Your task to perform on an android device: check battery use Image 0: 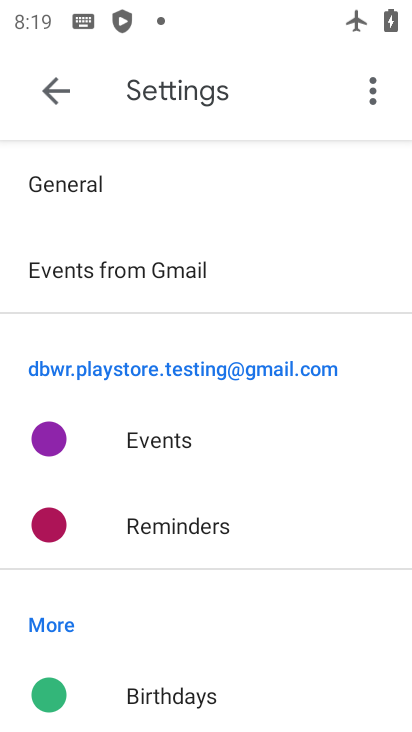
Step 0: press home button
Your task to perform on an android device: check battery use Image 1: 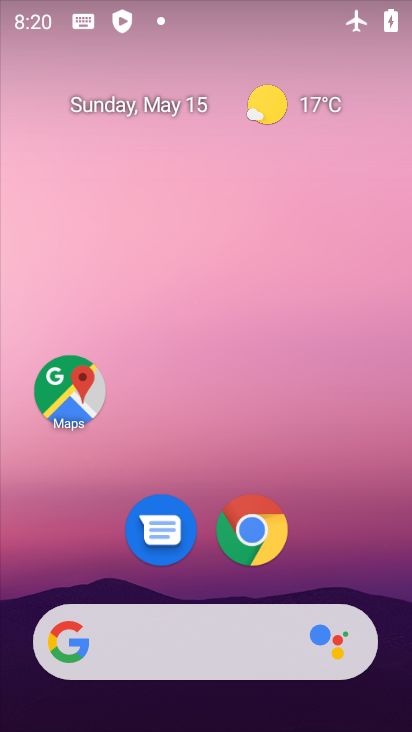
Step 1: drag from (212, 698) to (198, 94)
Your task to perform on an android device: check battery use Image 2: 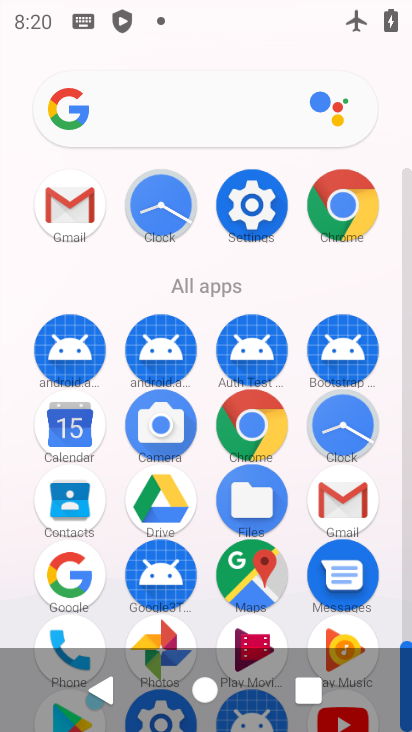
Step 2: click (247, 197)
Your task to perform on an android device: check battery use Image 3: 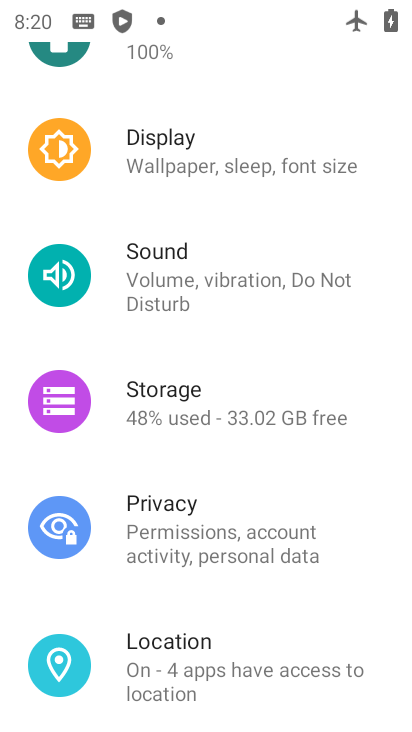
Step 3: drag from (207, 154) to (239, 554)
Your task to perform on an android device: check battery use Image 4: 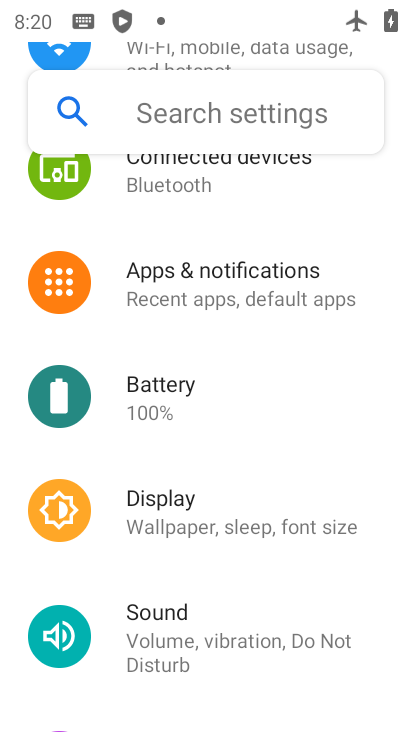
Step 4: click (172, 389)
Your task to perform on an android device: check battery use Image 5: 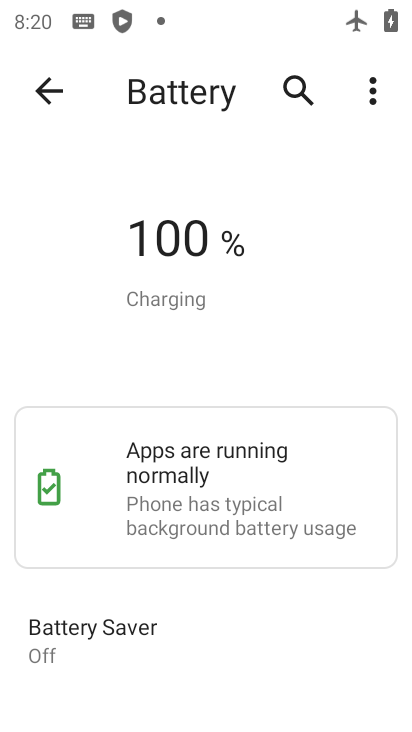
Step 5: click (374, 100)
Your task to perform on an android device: check battery use Image 6: 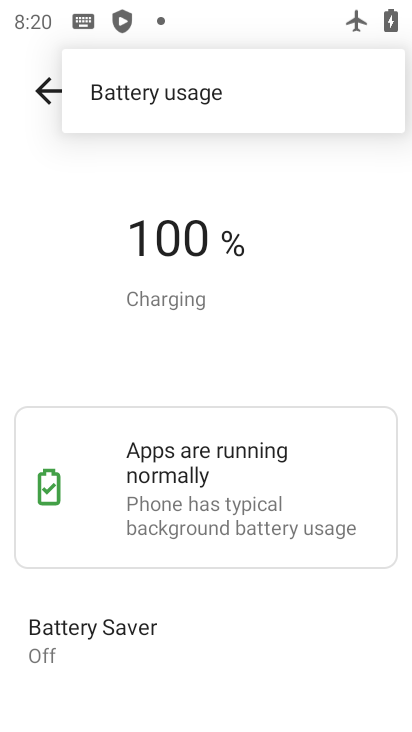
Step 6: click (151, 94)
Your task to perform on an android device: check battery use Image 7: 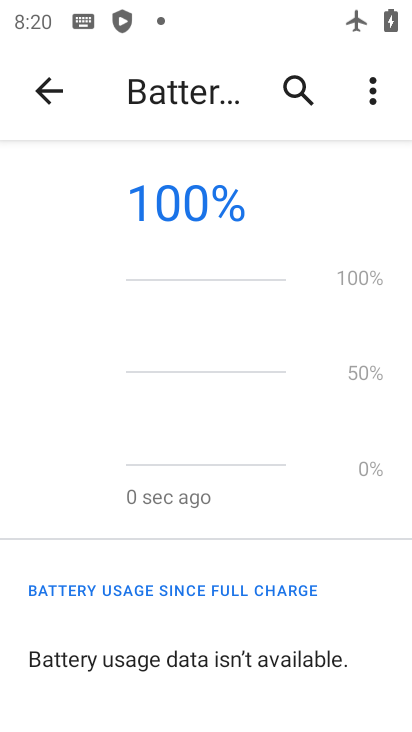
Step 7: task complete